Your task to perform on an android device: delete a single message in the gmail app Image 0: 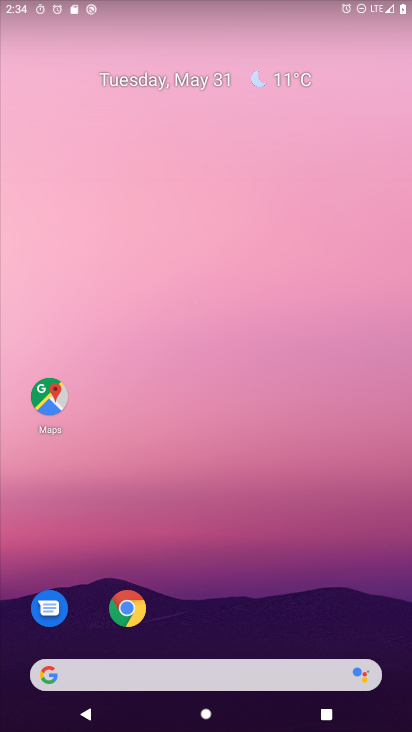
Step 0: drag from (247, 637) to (238, 13)
Your task to perform on an android device: delete a single message in the gmail app Image 1: 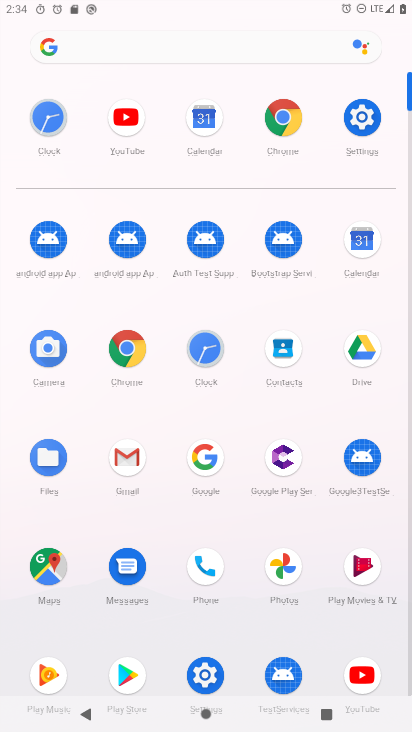
Step 1: click (122, 459)
Your task to perform on an android device: delete a single message in the gmail app Image 2: 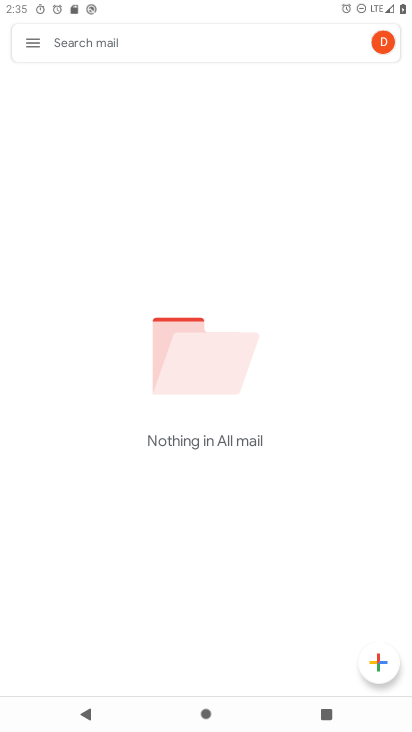
Step 2: task complete